Your task to perform on an android device: turn on sleep mode Image 0: 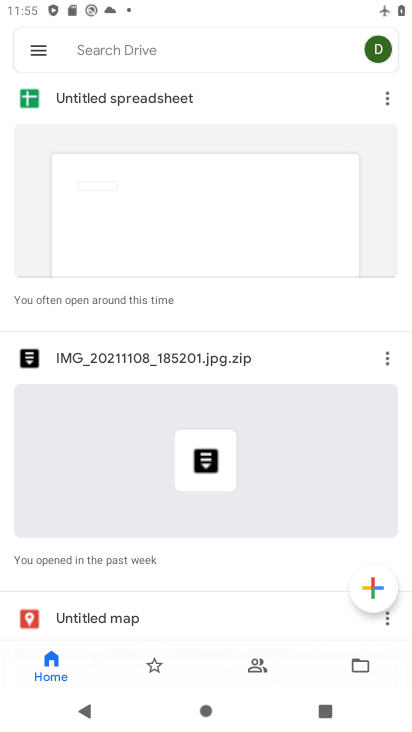
Step 0: press home button
Your task to perform on an android device: turn on sleep mode Image 1: 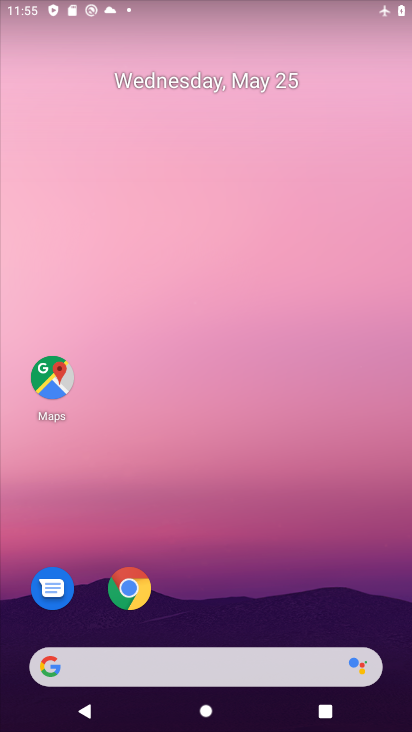
Step 1: drag from (203, 616) to (212, 212)
Your task to perform on an android device: turn on sleep mode Image 2: 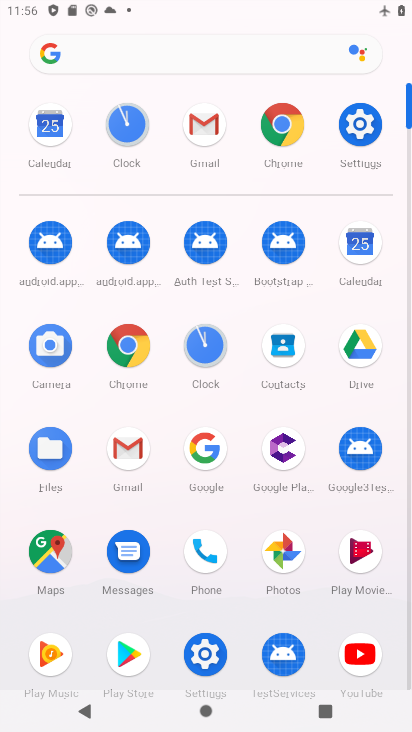
Step 2: click (361, 124)
Your task to perform on an android device: turn on sleep mode Image 3: 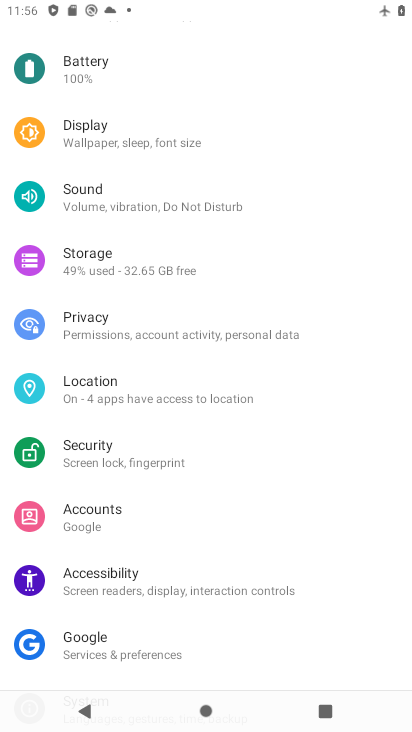
Step 3: click (144, 146)
Your task to perform on an android device: turn on sleep mode Image 4: 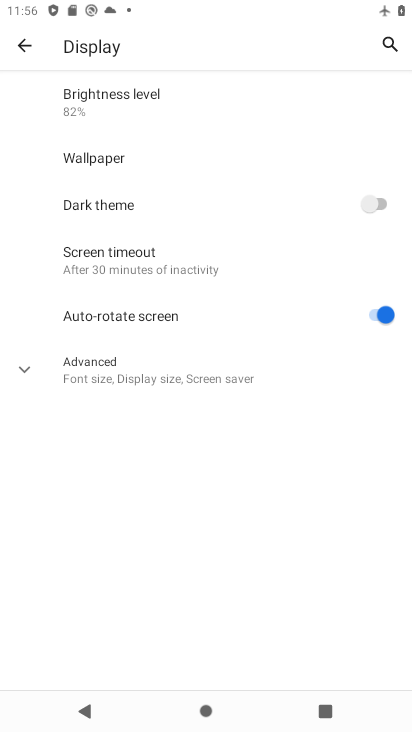
Step 4: task complete